Your task to perform on an android device: What's the weather today? Image 0: 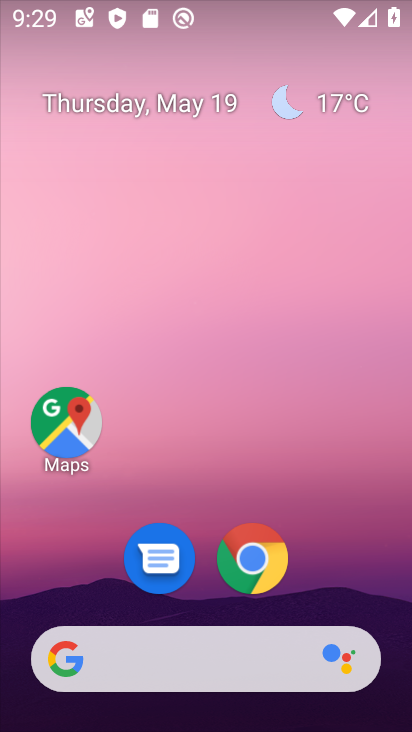
Step 0: click (284, 98)
Your task to perform on an android device: What's the weather today? Image 1: 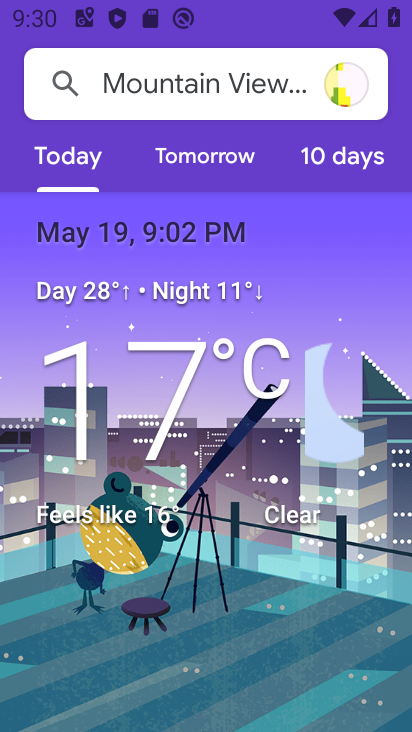
Step 1: task complete